Your task to perform on an android device: Open the calendar and show me this week's events? Image 0: 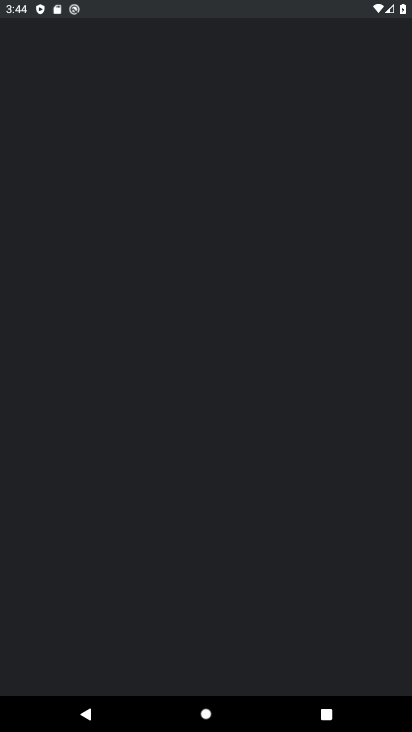
Step 0: drag from (245, 548) to (297, 222)
Your task to perform on an android device: Open the calendar and show me this week's events? Image 1: 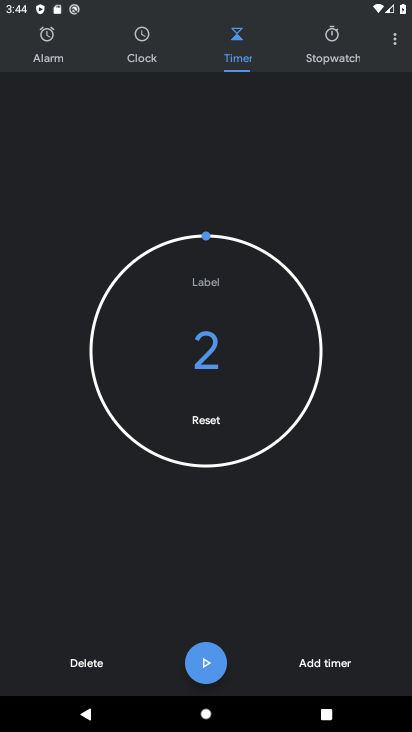
Step 1: press home button
Your task to perform on an android device: Open the calendar and show me this week's events? Image 2: 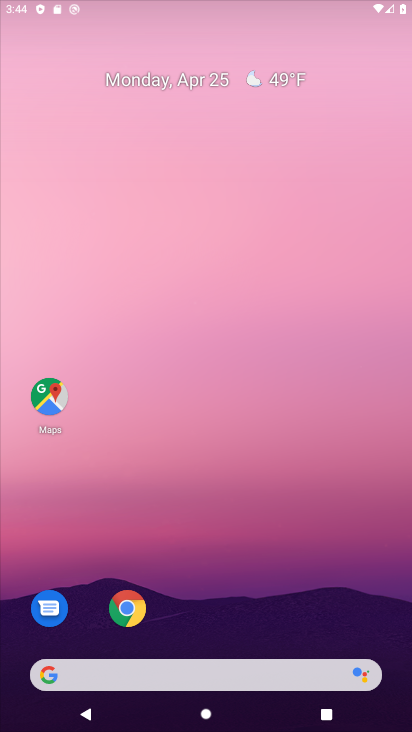
Step 2: drag from (265, 547) to (270, 307)
Your task to perform on an android device: Open the calendar and show me this week's events? Image 3: 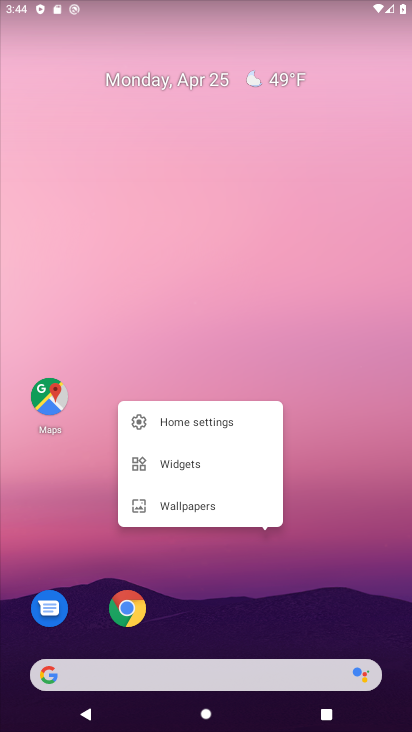
Step 3: click (381, 375)
Your task to perform on an android device: Open the calendar and show me this week's events? Image 4: 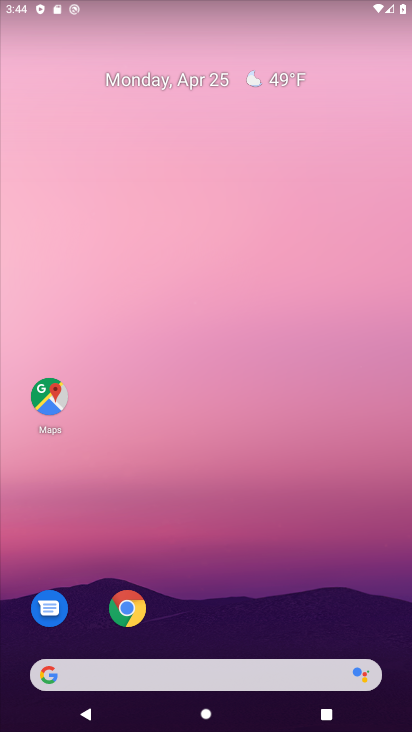
Step 4: drag from (238, 616) to (262, 266)
Your task to perform on an android device: Open the calendar and show me this week's events? Image 5: 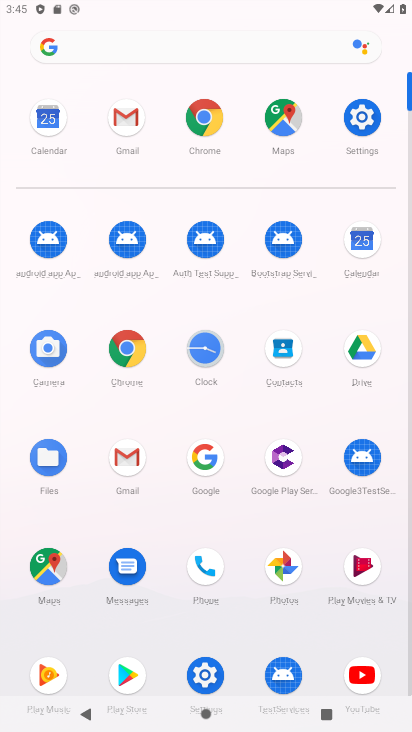
Step 5: drag from (229, 576) to (235, 324)
Your task to perform on an android device: Open the calendar and show me this week's events? Image 6: 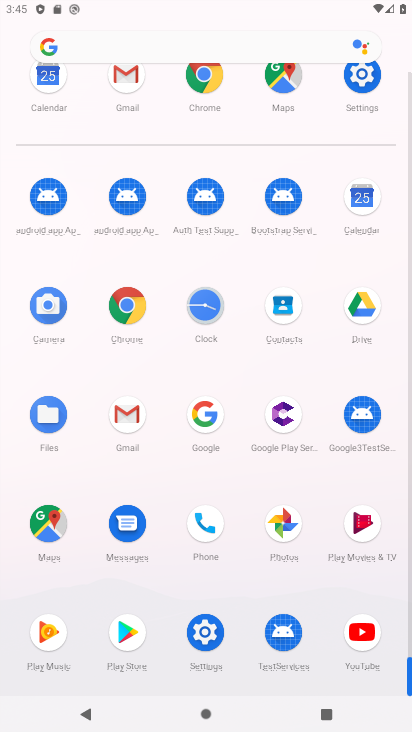
Step 6: click (372, 233)
Your task to perform on an android device: Open the calendar and show me this week's events? Image 7: 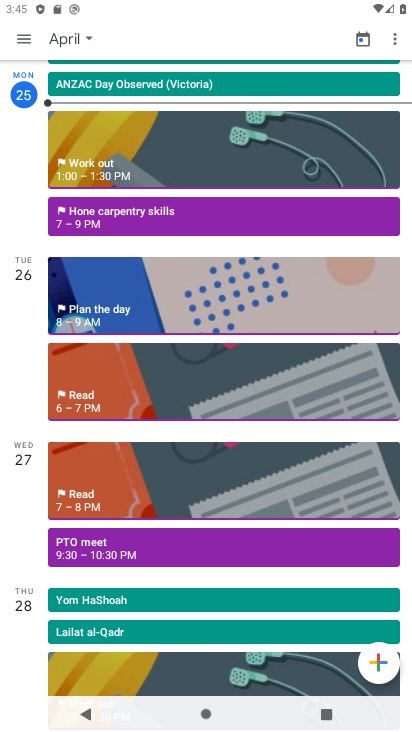
Step 7: task complete